Your task to perform on an android device: check out phone information Image 0: 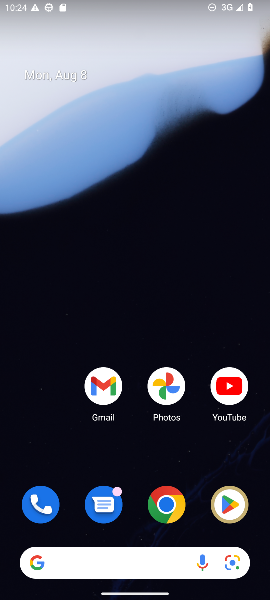
Step 0: drag from (156, 469) to (181, 30)
Your task to perform on an android device: check out phone information Image 1: 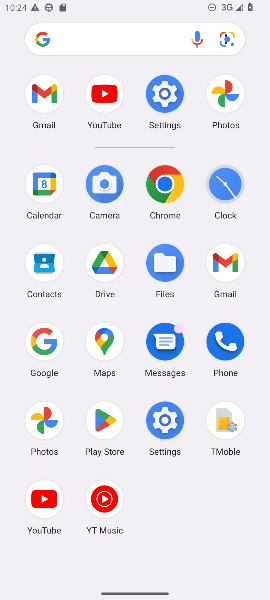
Step 1: click (167, 436)
Your task to perform on an android device: check out phone information Image 2: 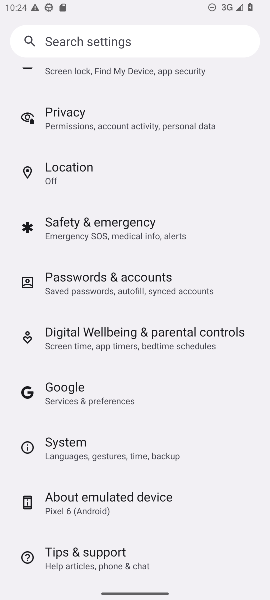
Step 2: drag from (121, 509) to (134, 355)
Your task to perform on an android device: check out phone information Image 3: 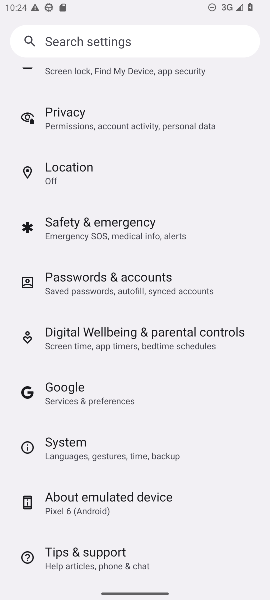
Step 3: click (105, 514)
Your task to perform on an android device: check out phone information Image 4: 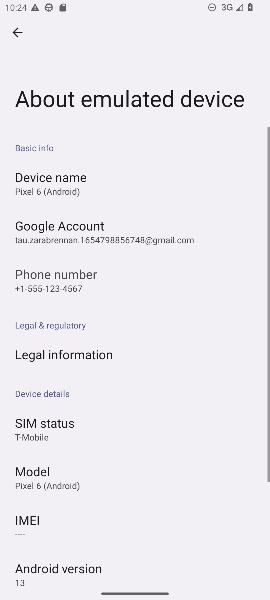
Step 4: task complete